Your task to perform on an android device: Open privacy settings Image 0: 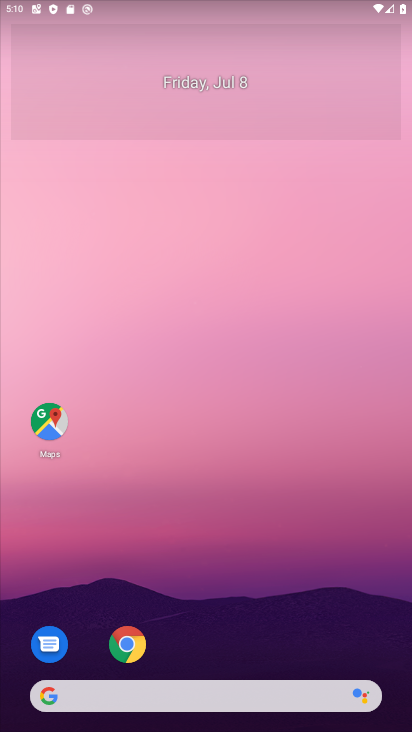
Step 0: drag from (285, 364) to (250, 226)
Your task to perform on an android device: Open privacy settings Image 1: 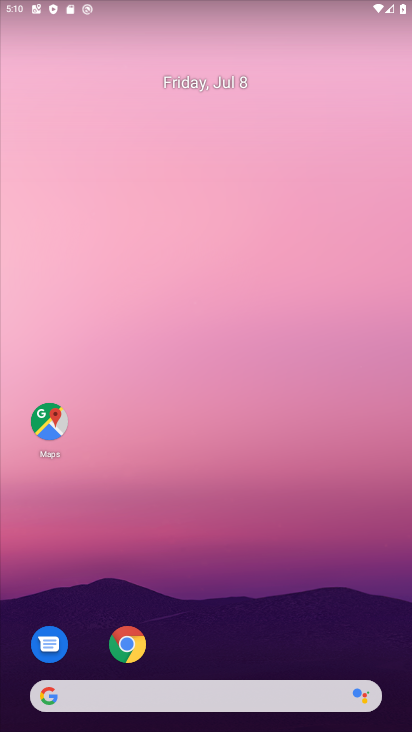
Step 1: drag from (302, 583) to (270, 59)
Your task to perform on an android device: Open privacy settings Image 2: 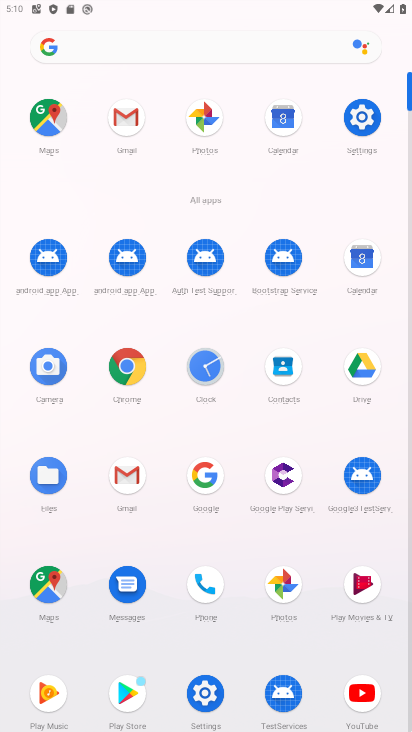
Step 2: click (219, 688)
Your task to perform on an android device: Open privacy settings Image 3: 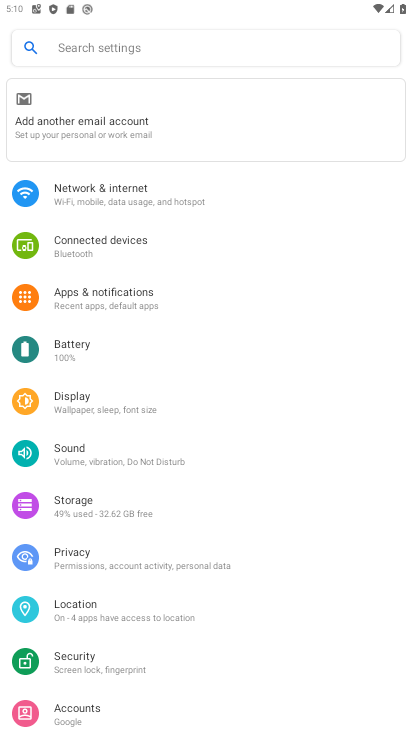
Step 3: click (98, 571)
Your task to perform on an android device: Open privacy settings Image 4: 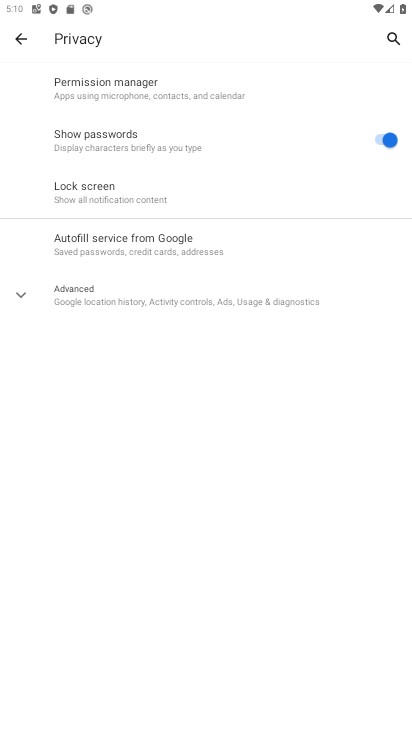
Step 4: task complete